Your task to perform on an android device: toggle data saver in the chrome app Image 0: 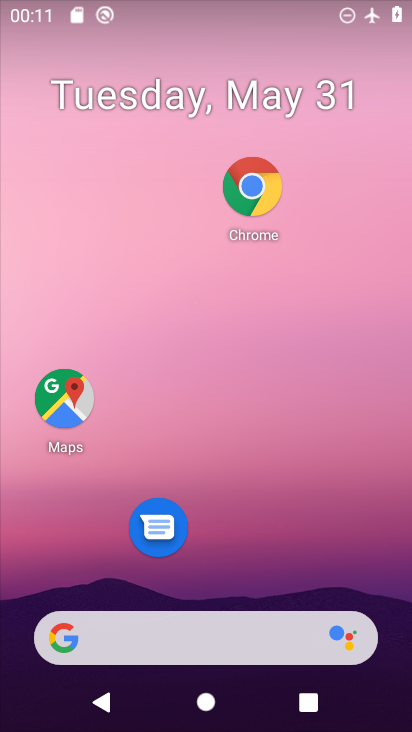
Step 0: drag from (258, 536) to (195, 235)
Your task to perform on an android device: toggle data saver in the chrome app Image 1: 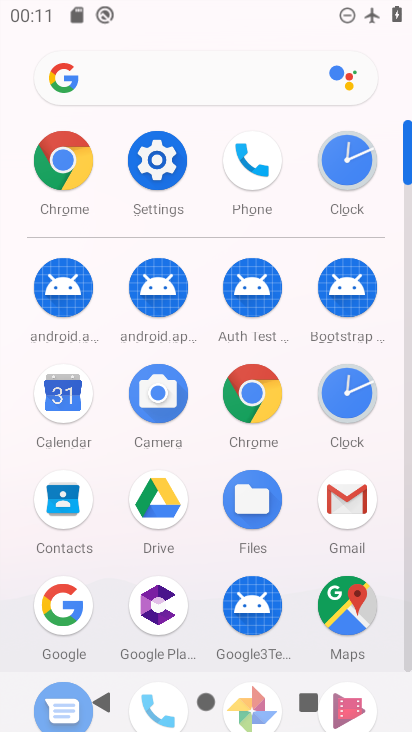
Step 1: click (260, 381)
Your task to perform on an android device: toggle data saver in the chrome app Image 2: 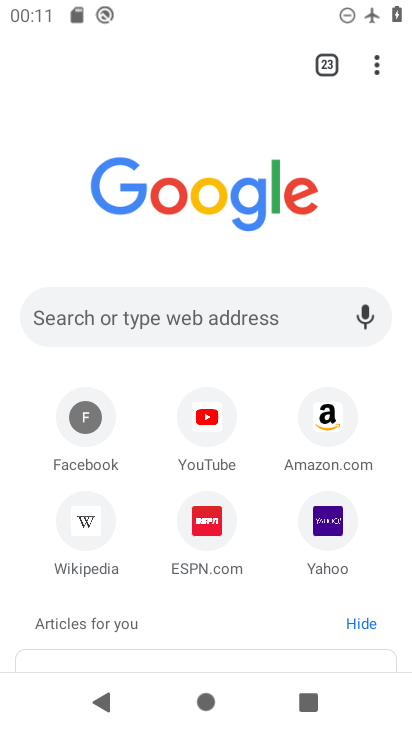
Step 2: click (377, 50)
Your task to perform on an android device: toggle data saver in the chrome app Image 3: 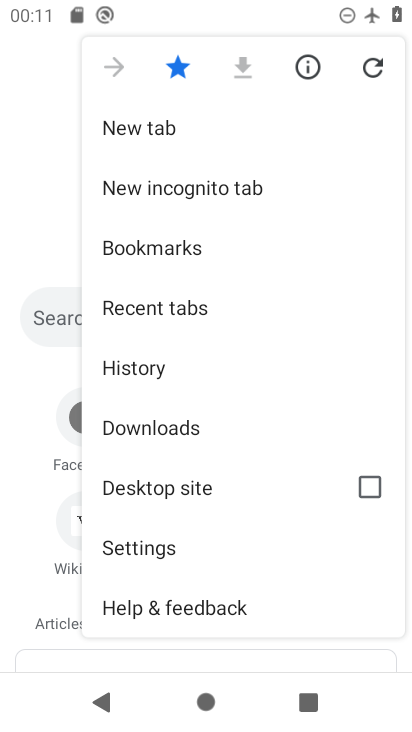
Step 3: click (180, 550)
Your task to perform on an android device: toggle data saver in the chrome app Image 4: 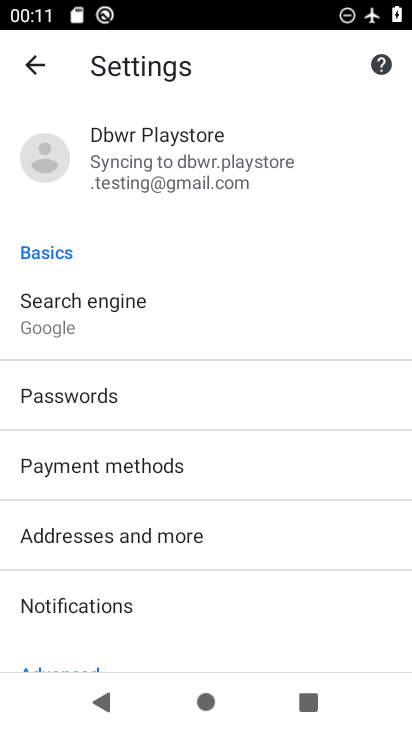
Step 4: drag from (242, 564) to (267, 195)
Your task to perform on an android device: toggle data saver in the chrome app Image 5: 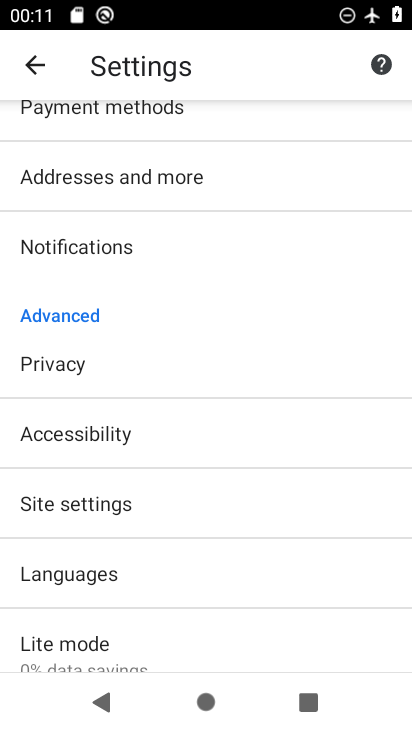
Step 5: drag from (210, 605) to (267, 295)
Your task to perform on an android device: toggle data saver in the chrome app Image 6: 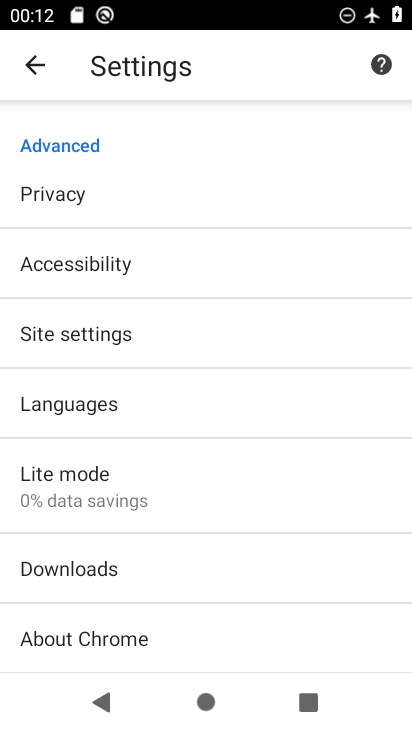
Step 6: click (127, 471)
Your task to perform on an android device: toggle data saver in the chrome app Image 7: 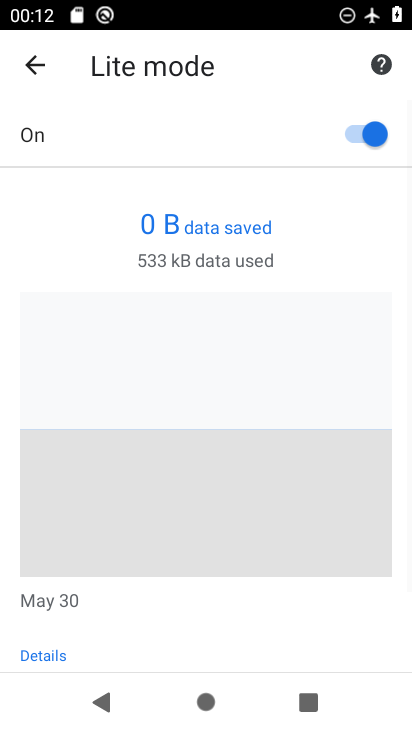
Step 7: click (350, 120)
Your task to perform on an android device: toggle data saver in the chrome app Image 8: 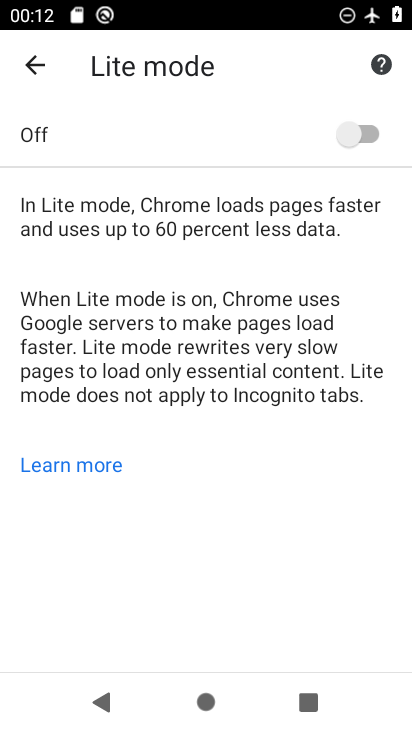
Step 8: task complete